Your task to perform on an android device: Open the stopwatch Image 0: 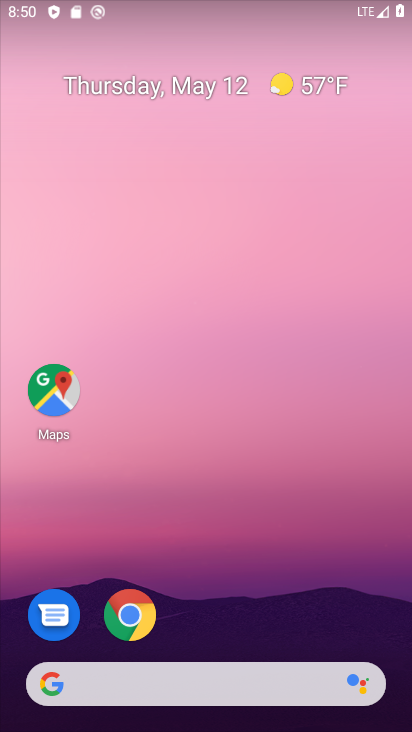
Step 0: drag from (240, 579) to (186, 65)
Your task to perform on an android device: Open the stopwatch Image 1: 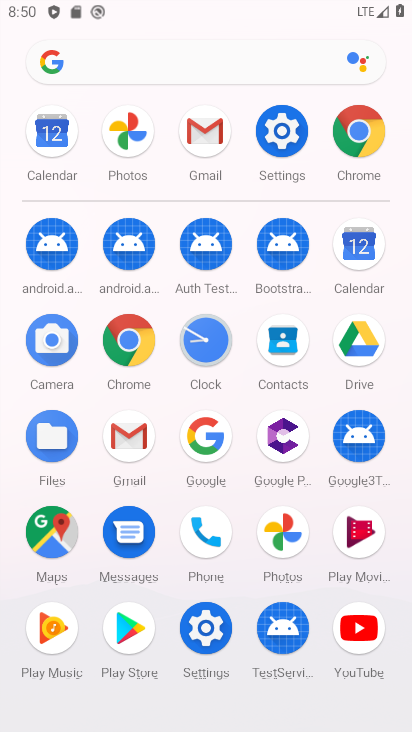
Step 1: drag from (16, 519) to (0, 215)
Your task to perform on an android device: Open the stopwatch Image 2: 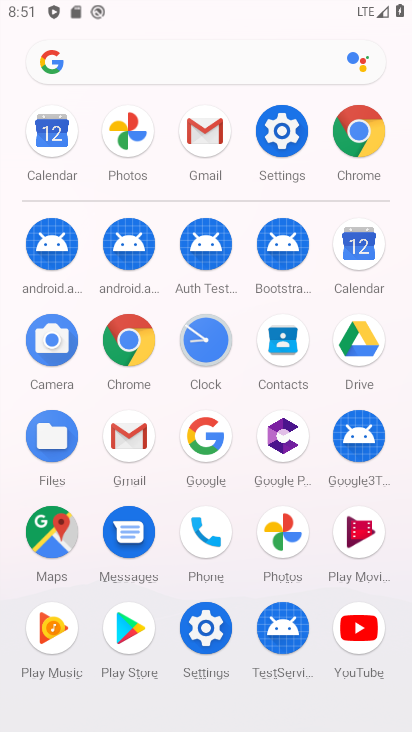
Step 2: drag from (12, 550) to (23, 299)
Your task to perform on an android device: Open the stopwatch Image 3: 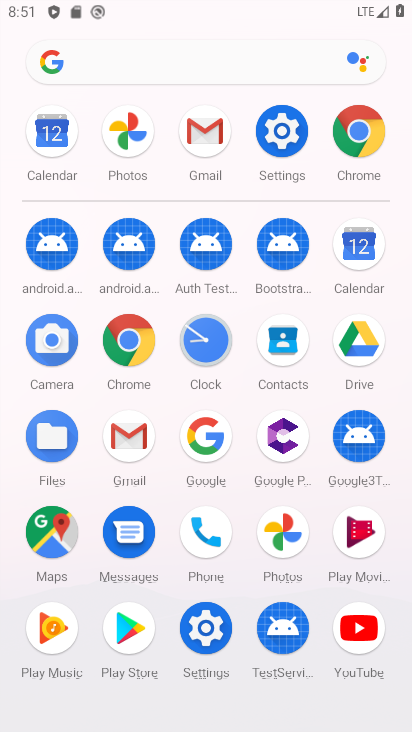
Step 3: drag from (13, 522) to (2, 234)
Your task to perform on an android device: Open the stopwatch Image 4: 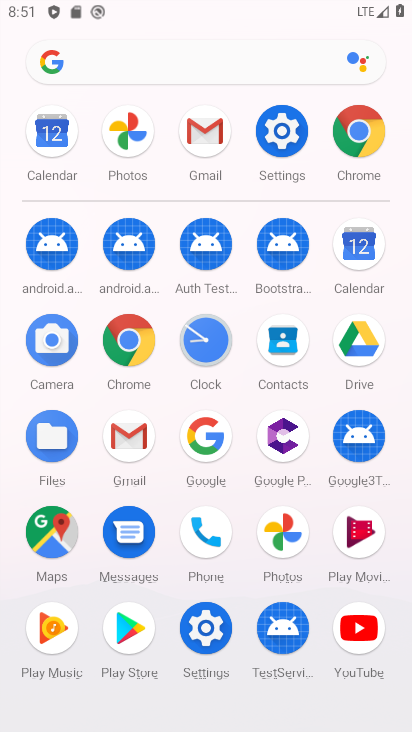
Step 4: click (203, 340)
Your task to perform on an android device: Open the stopwatch Image 5: 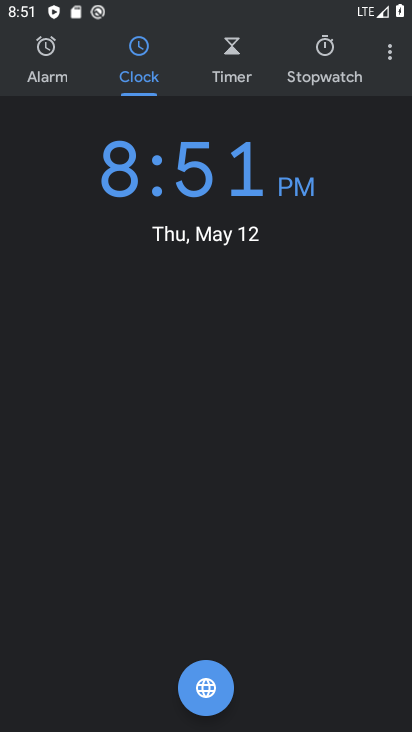
Step 5: click (304, 47)
Your task to perform on an android device: Open the stopwatch Image 6: 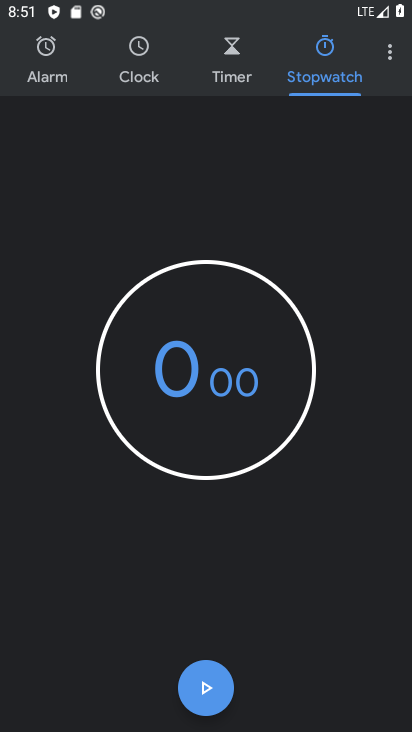
Step 6: click (204, 691)
Your task to perform on an android device: Open the stopwatch Image 7: 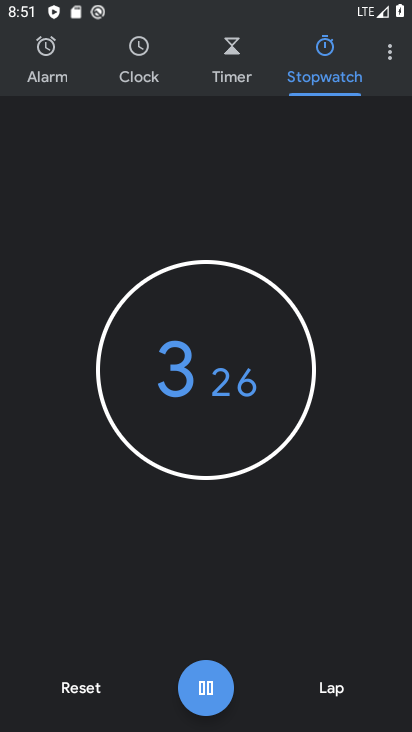
Step 7: click (194, 680)
Your task to perform on an android device: Open the stopwatch Image 8: 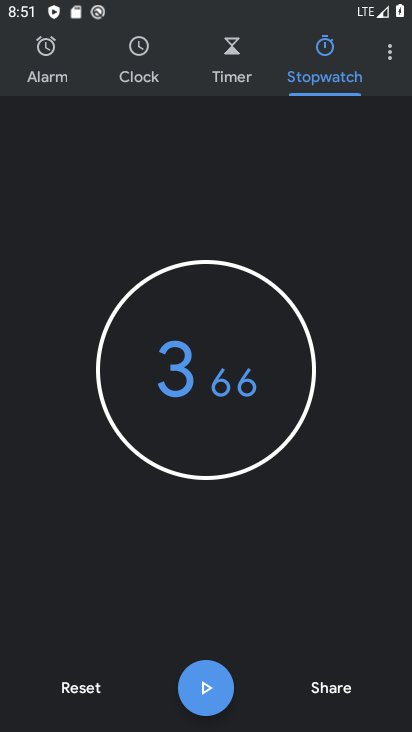
Step 8: task complete